Your task to perform on an android device: Show me the alarms in the clock app Image 0: 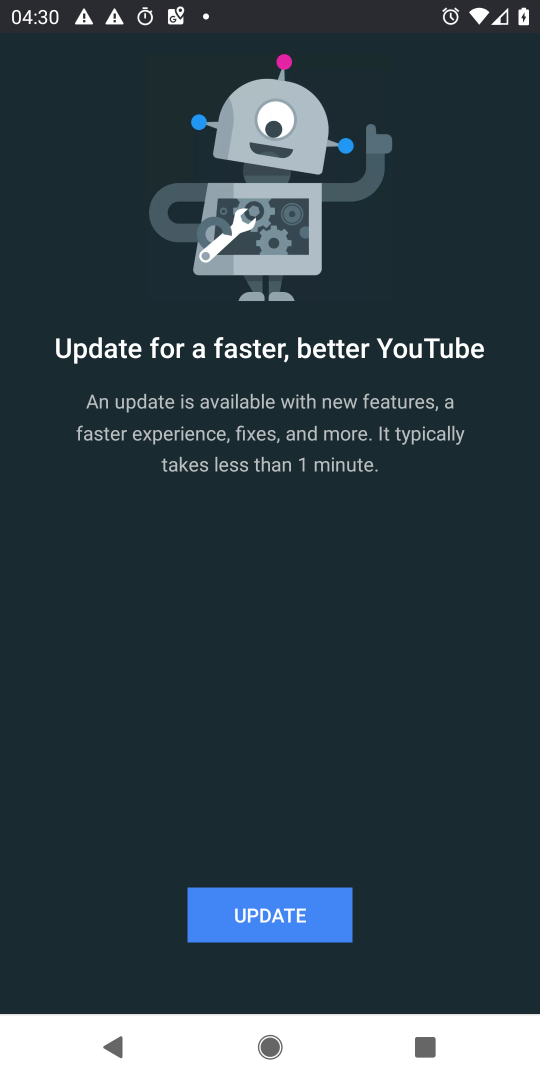
Step 0: press home button
Your task to perform on an android device: Show me the alarms in the clock app Image 1: 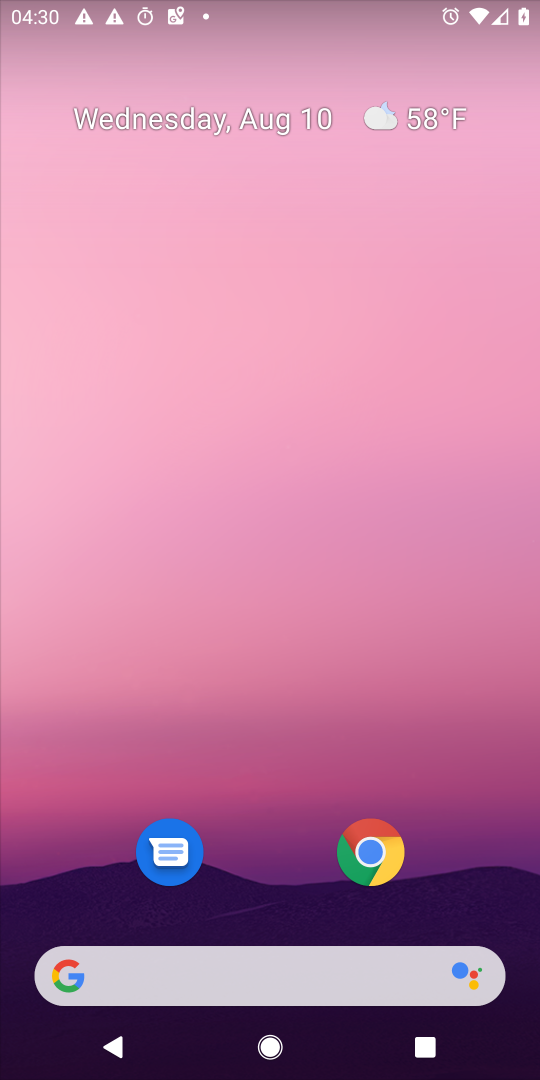
Step 1: drag from (268, 857) to (128, 154)
Your task to perform on an android device: Show me the alarms in the clock app Image 2: 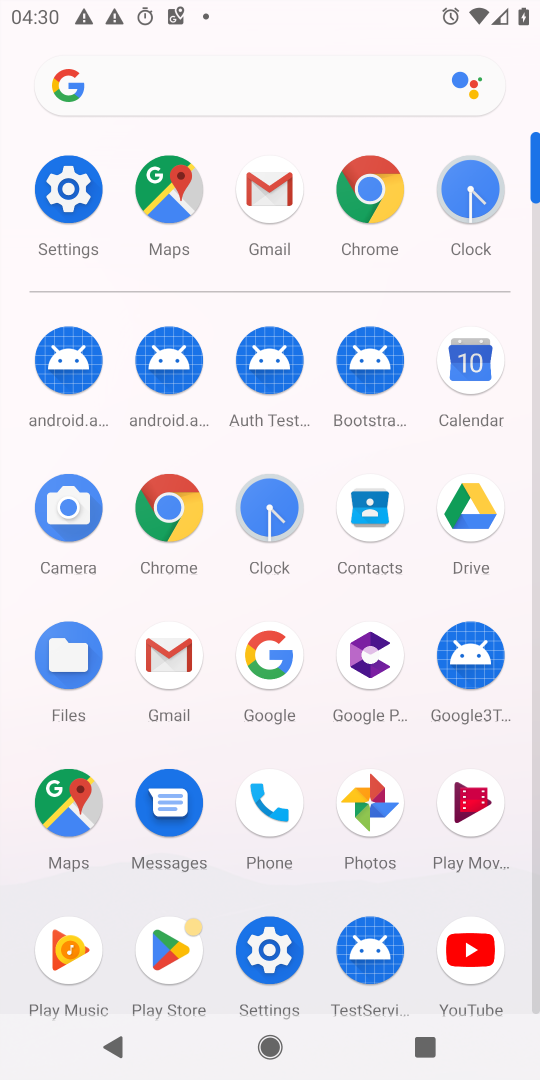
Step 2: click (246, 511)
Your task to perform on an android device: Show me the alarms in the clock app Image 3: 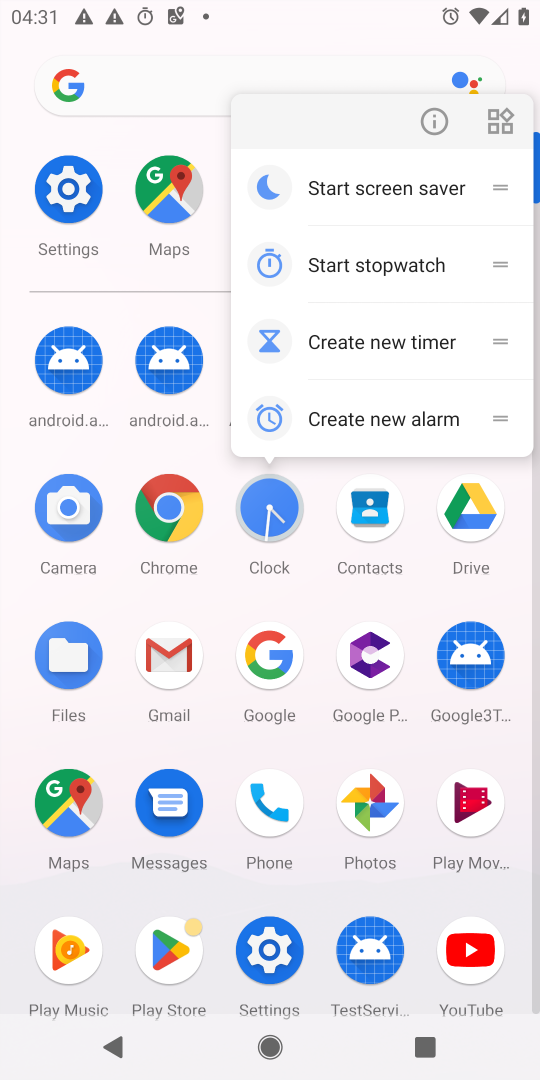
Step 3: click (266, 504)
Your task to perform on an android device: Show me the alarms in the clock app Image 4: 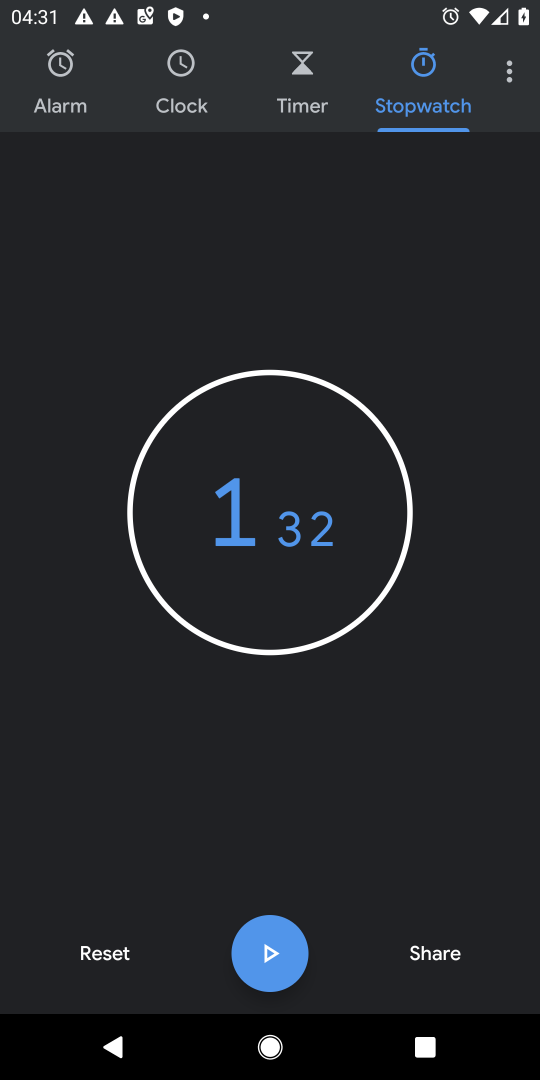
Step 4: click (514, 58)
Your task to perform on an android device: Show me the alarms in the clock app Image 5: 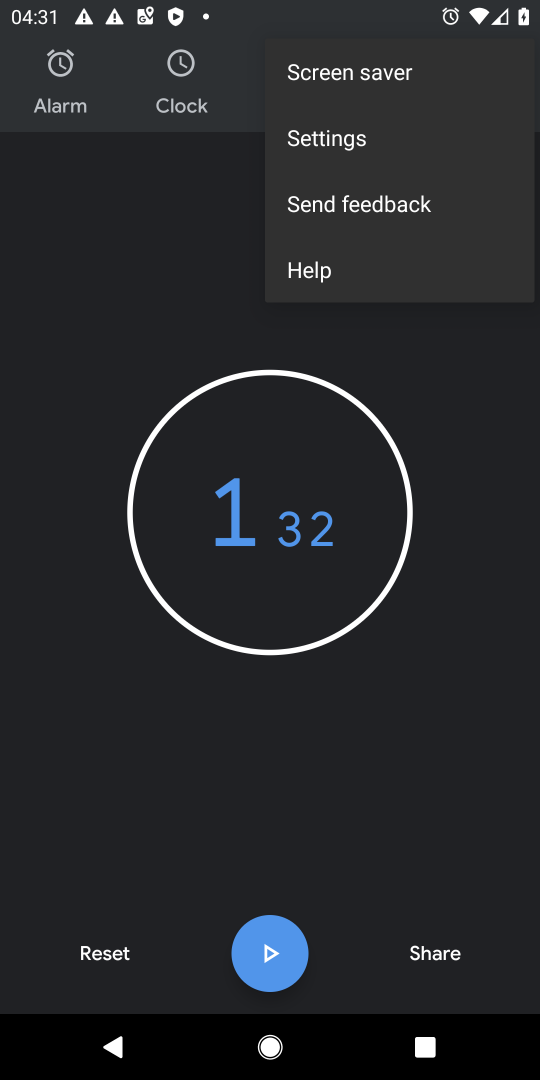
Step 5: click (139, 193)
Your task to perform on an android device: Show me the alarms in the clock app Image 6: 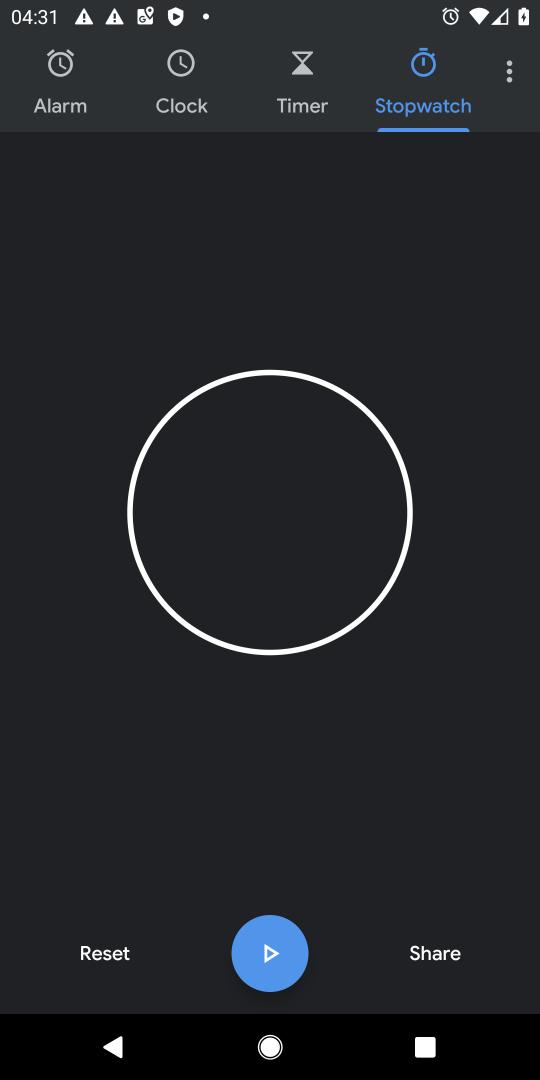
Step 6: click (69, 116)
Your task to perform on an android device: Show me the alarms in the clock app Image 7: 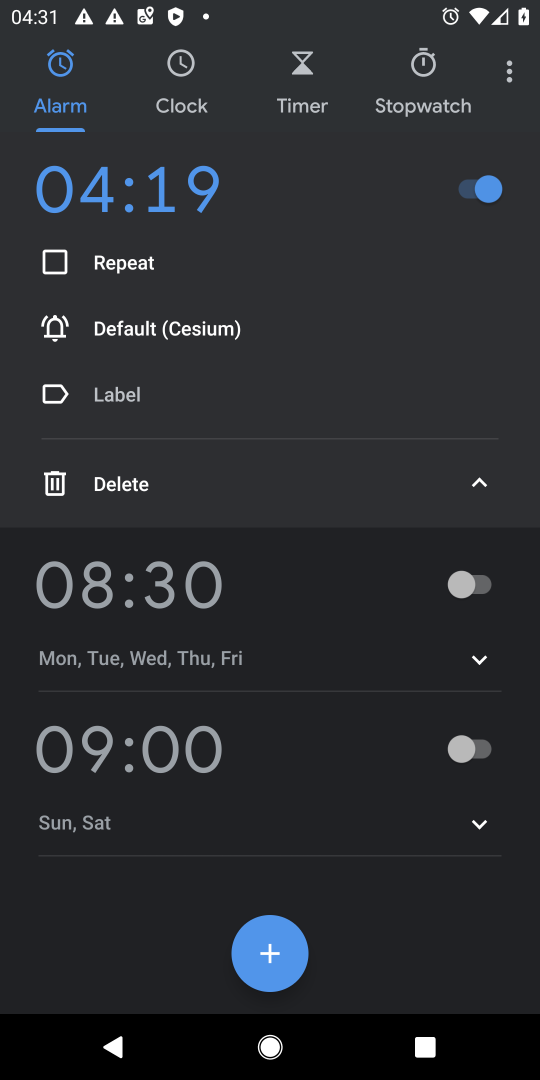
Step 7: task complete